Your task to perform on an android device: star an email in the gmail app Image 0: 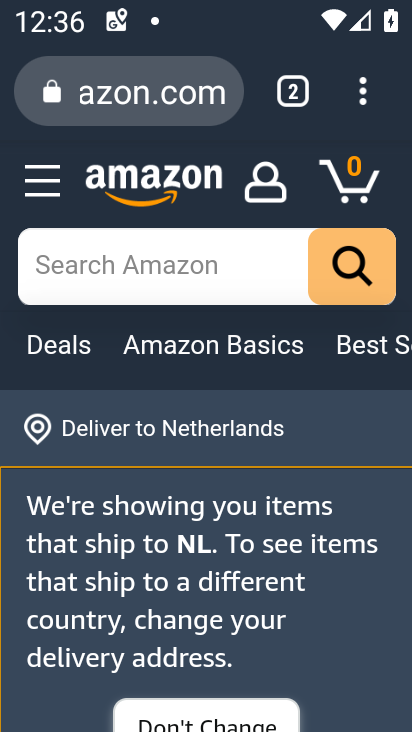
Step 0: press back button
Your task to perform on an android device: star an email in the gmail app Image 1: 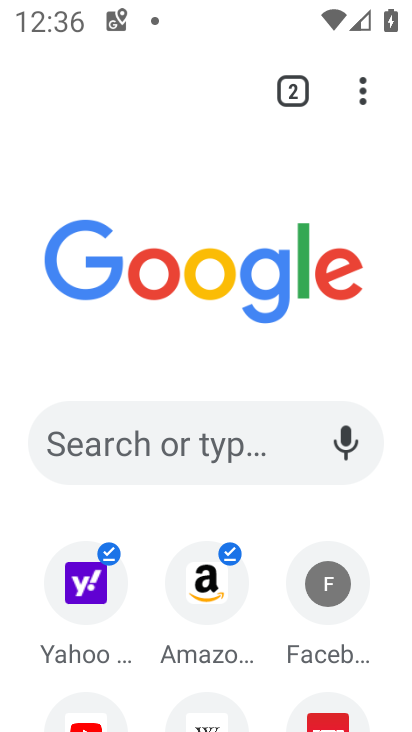
Step 1: press home button
Your task to perform on an android device: star an email in the gmail app Image 2: 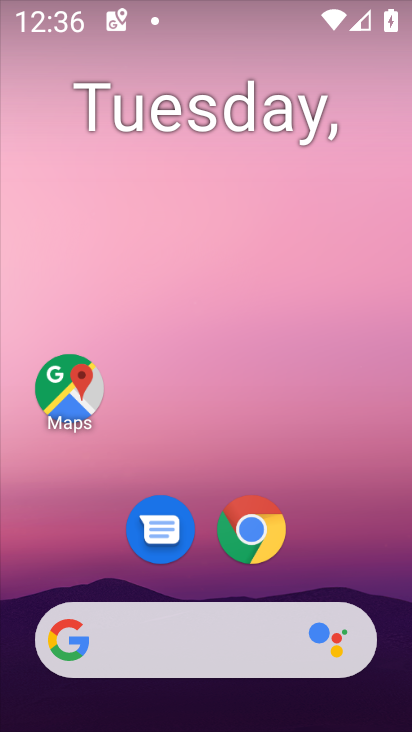
Step 2: drag from (190, 568) to (205, 77)
Your task to perform on an android device: star an email in the gmail app Image 3: 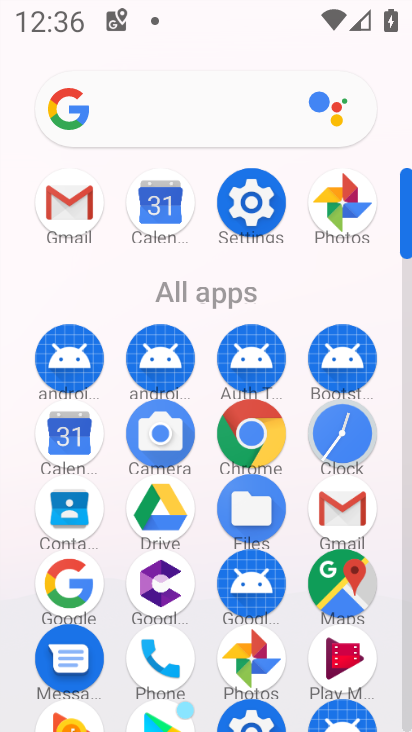
Step 3: click (61, 200)
Your task to perform on an android device: star an email in the gmail app Image 4: 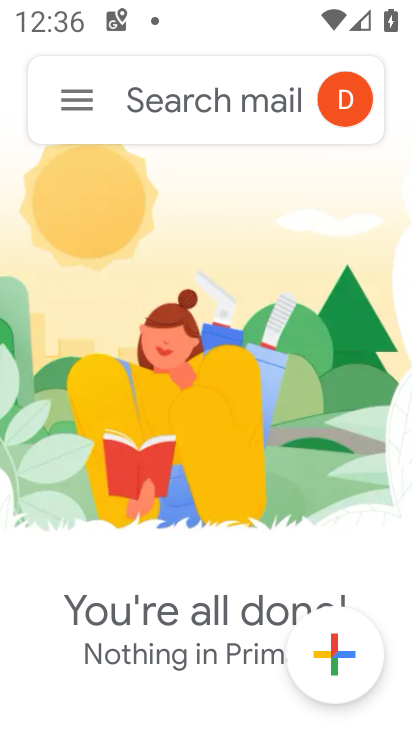
Step 4: click (63, 94)
Your task to perform on an android device: star an email in the gmail app Image 5: 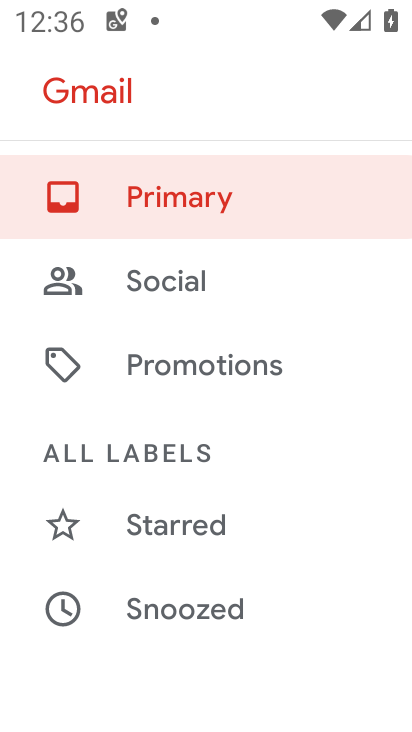
Step 5: drag from (217, 585) to (205, 12)
Your task to perform on an android device: star an email in the gmail app Image 6: 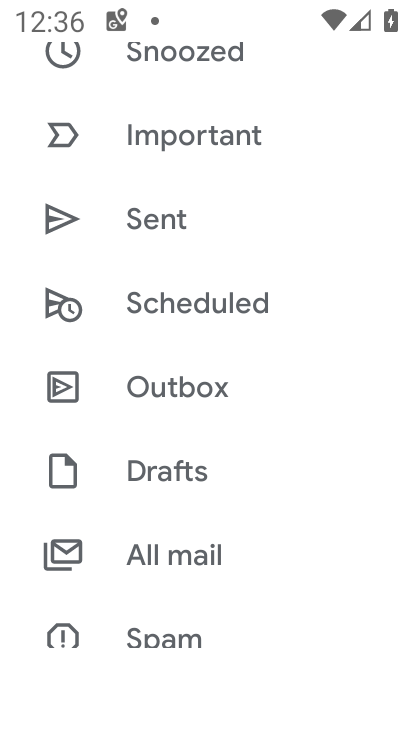
Step 6: click (186, 557)
Your task to perform on an android device: star an email in the gmail app Image 7: 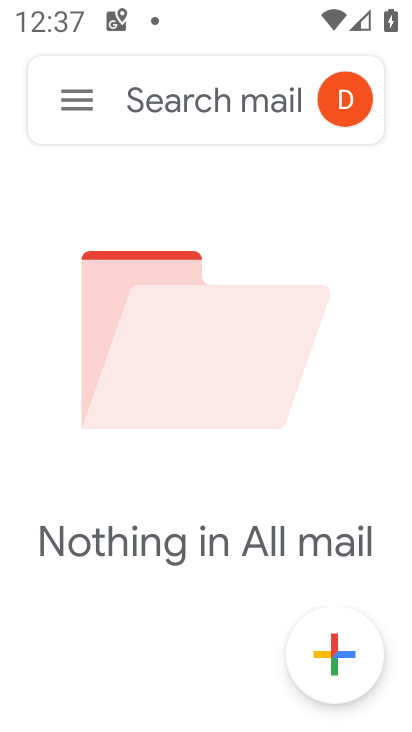
Step 7: task complete